Your task to perform on an android device: Do I have any events tomorrow? Image 0: 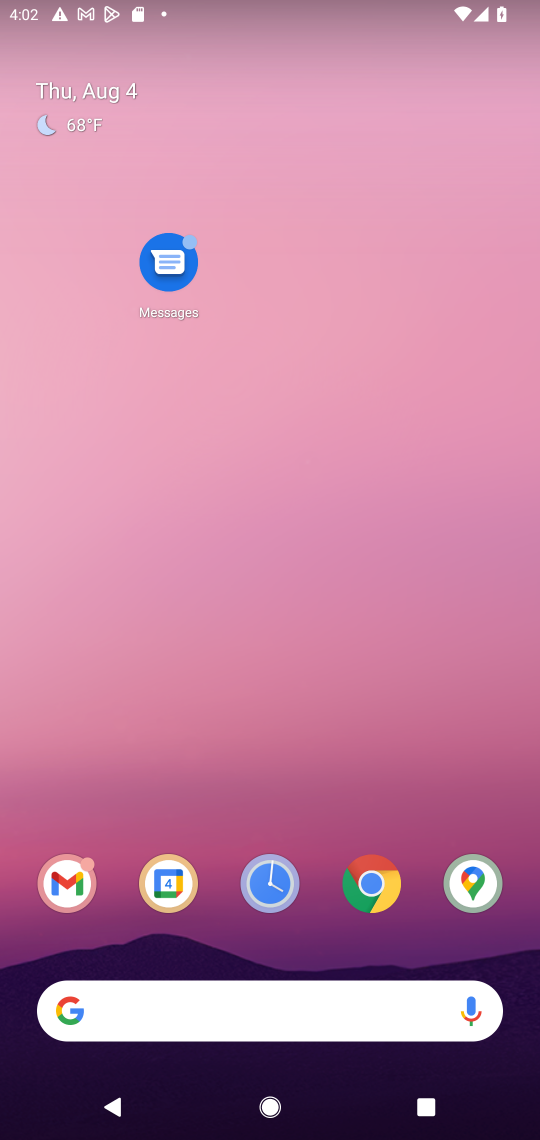
Step 0: drag from (317, 953) to (319, 166)
Your task to perform on an android device: Do I have any events tomorrow? Image 1: 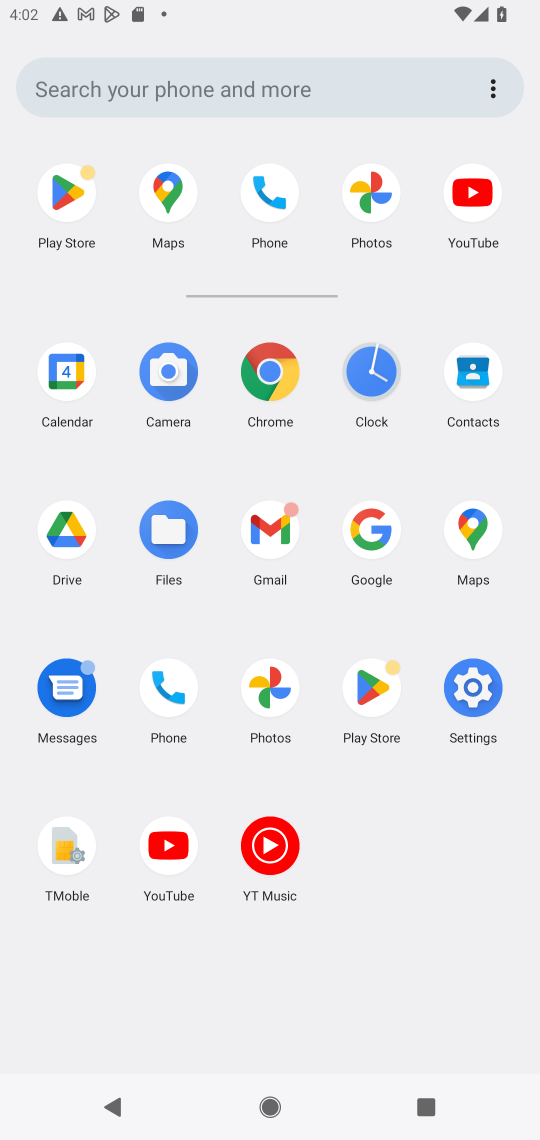
Step 1: click (65, 374)
Your task to perform on an android device: Do I have any events tomorrow? Image 2: 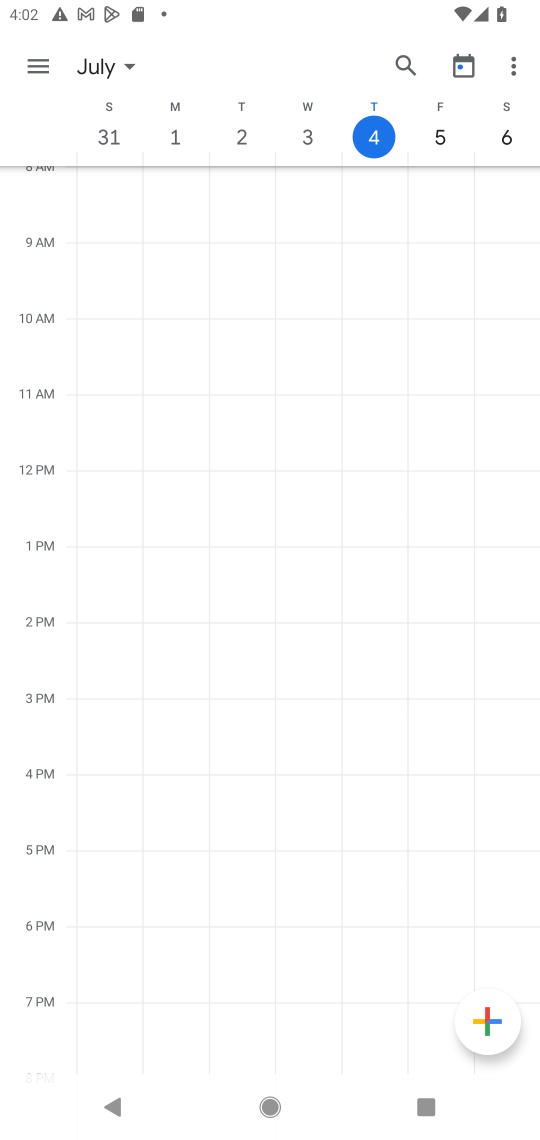
Step 2: click (44, 61)
Your task to perform on an android device: Do I have any events tomorrow? Image 3: 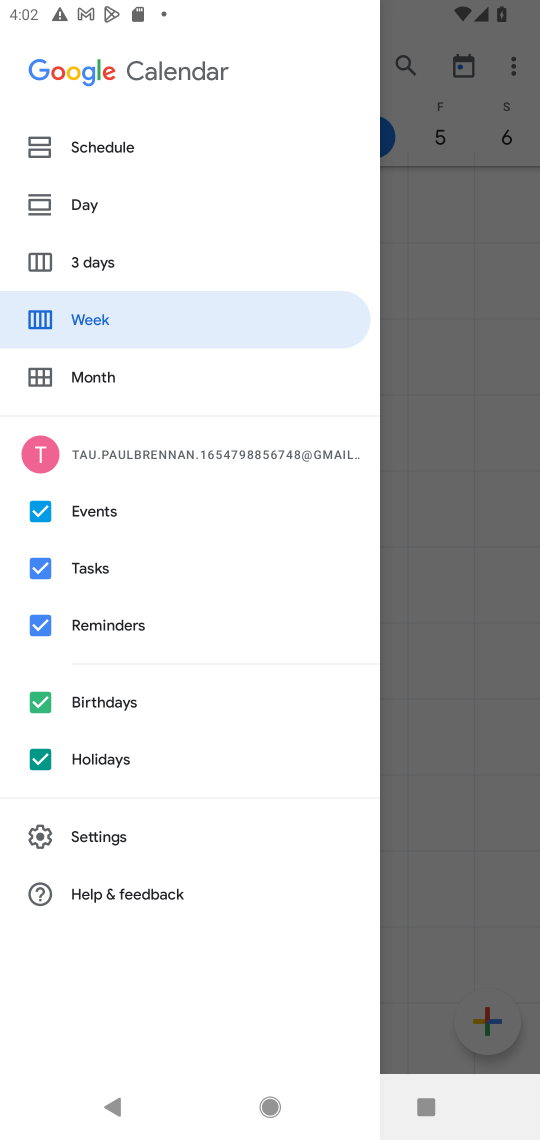
Step 3: click (42, 755)
Your task to perform on an android device: Do I have any events tomorrow? Image 4: 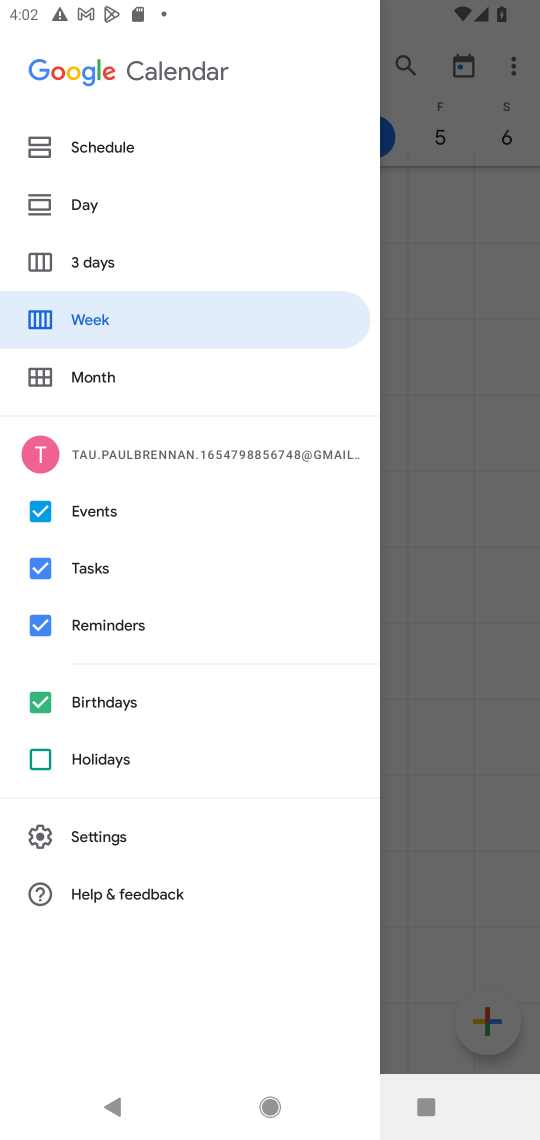
Step 4: click (41, 689)
Your task to perform on an android device: Do I have any events tomorrow? Image 5: 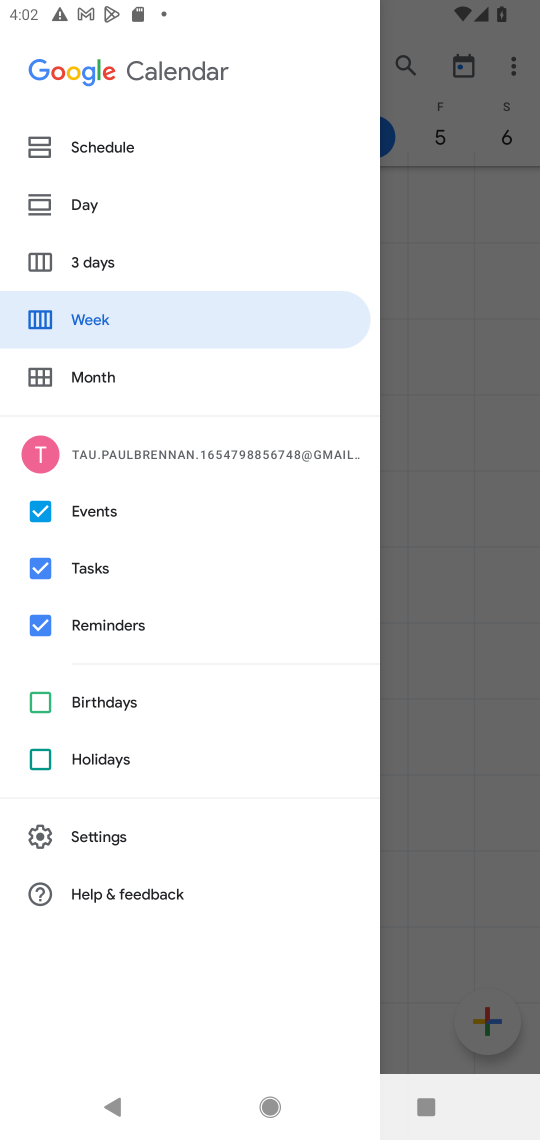
Step 5: click (42, 625)
Your task to perform on an android device: Do I have any events tomorrow? Image 6: 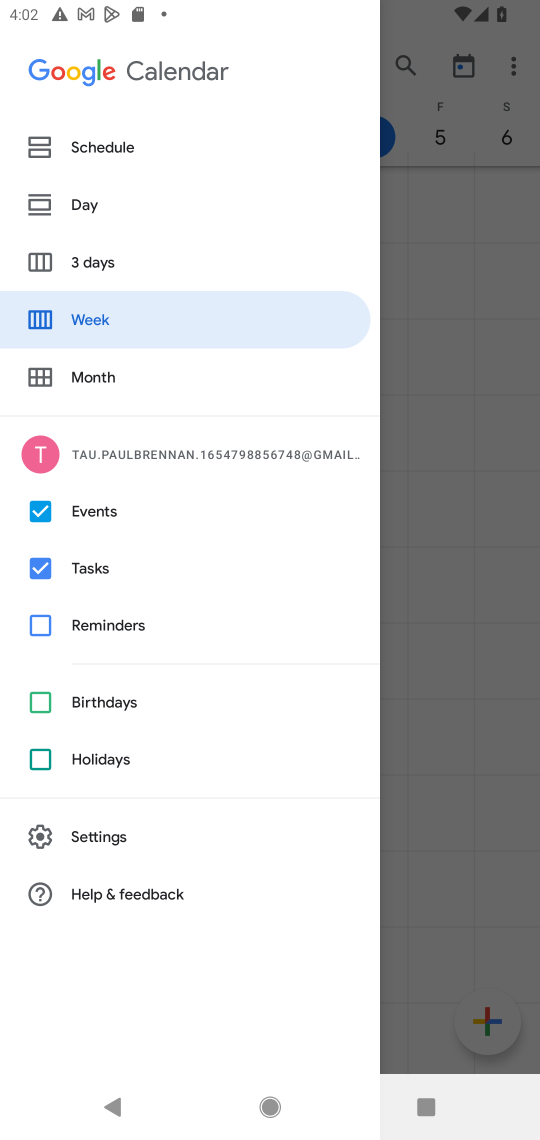
Step 6: click (38, 563)
Your task to perform on an android device: Do I have any events tomorrow? Image 7: 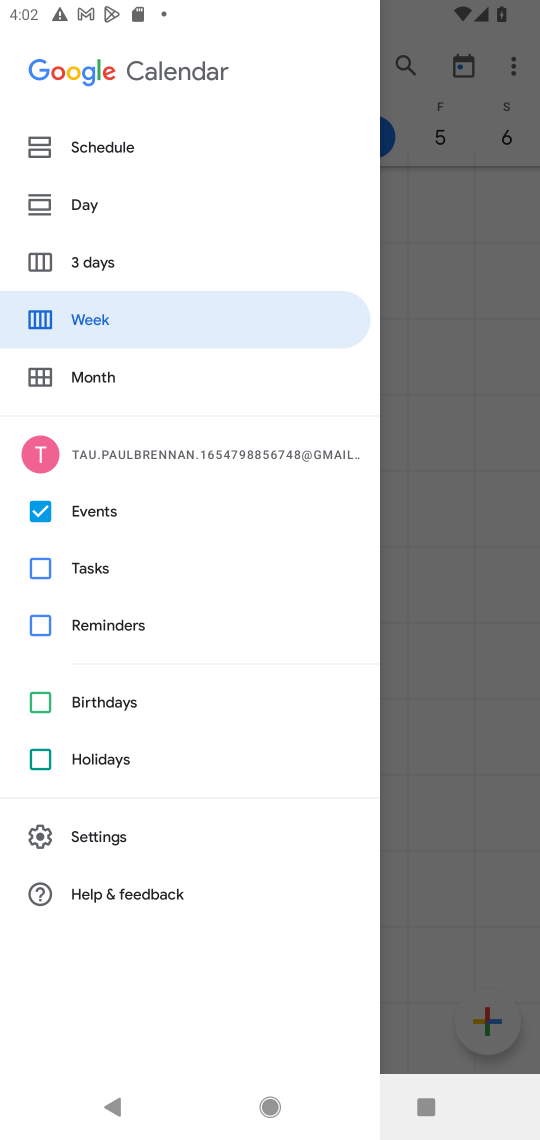
Step 7: click (127, 318)
Your task to perform on an android device: Do I have any events tomorrow? Image 8: 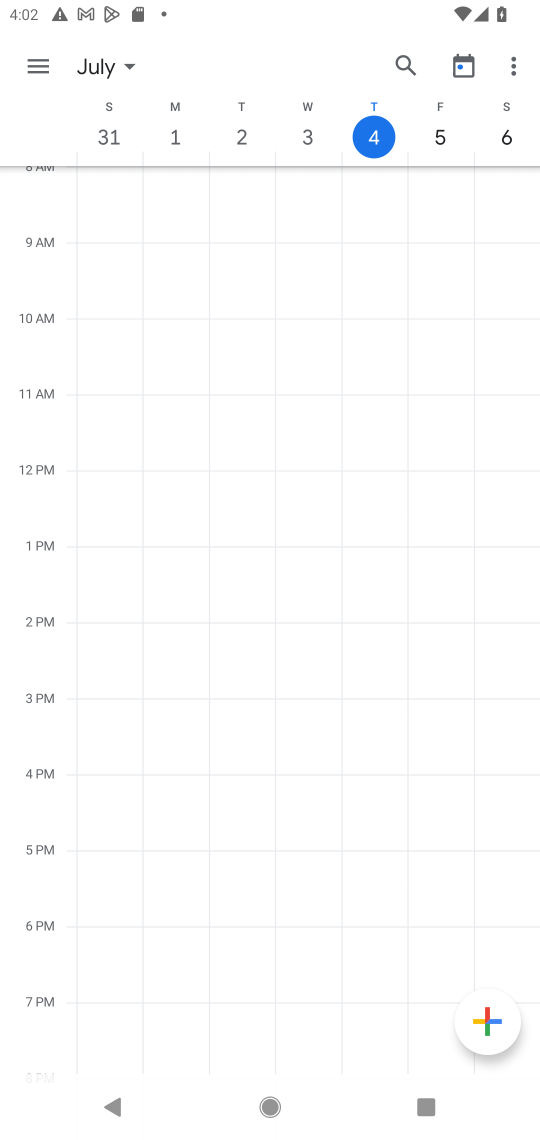
Step 8: click (440, 138)
Your task to perform on an android device: Do I have any events tomorrow? Image 9: 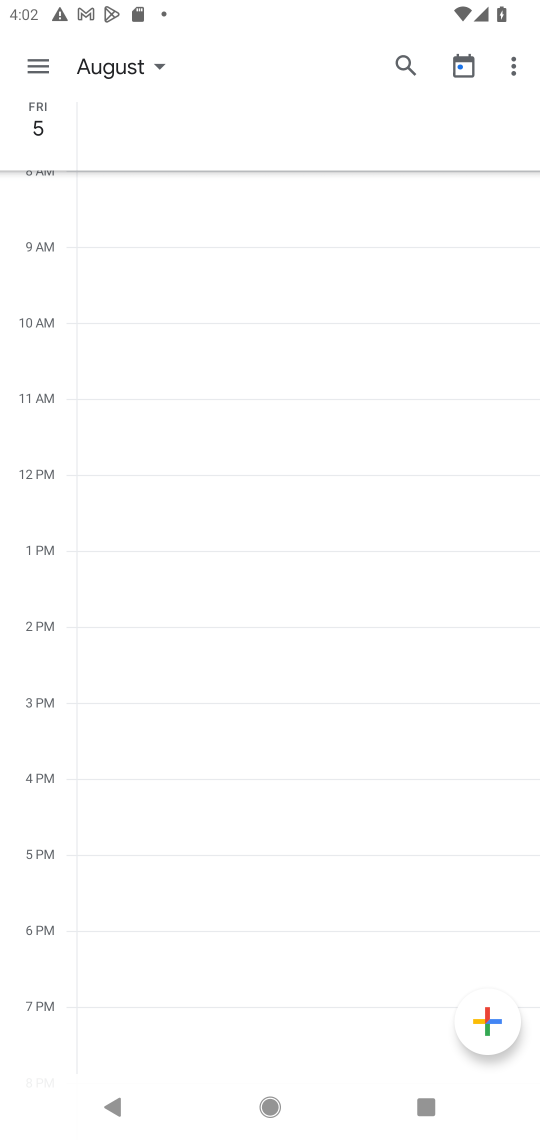
Step 9: drag from (437, 135) to (138, 129)
Your task to perform on an android device: Do I have any events tomorrow? Image 10: 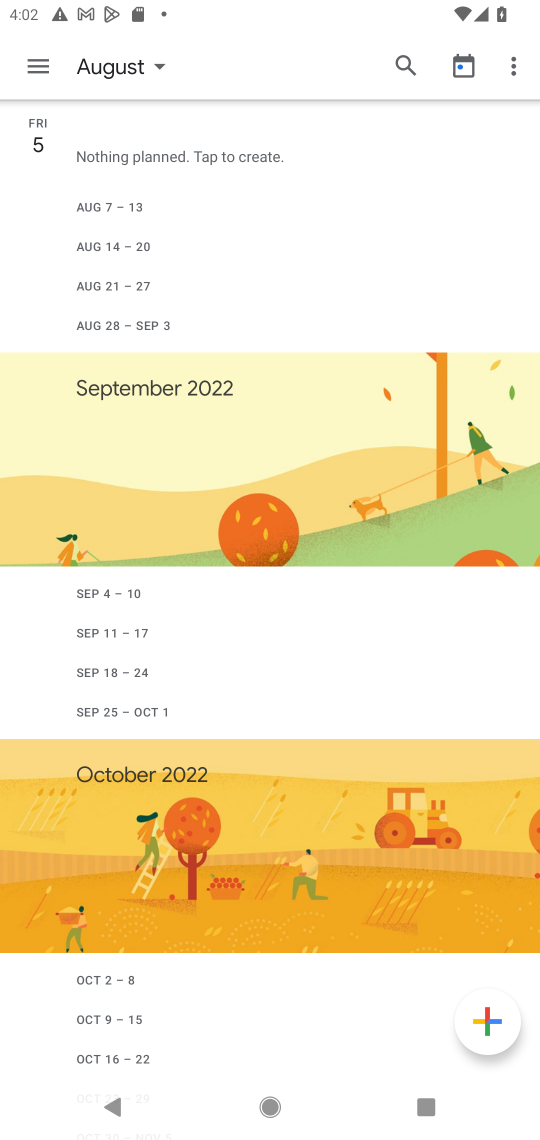
Step 10: click (158, 64)
Your task to perform on an android device: Do I have any events tomorrow? Image 11: 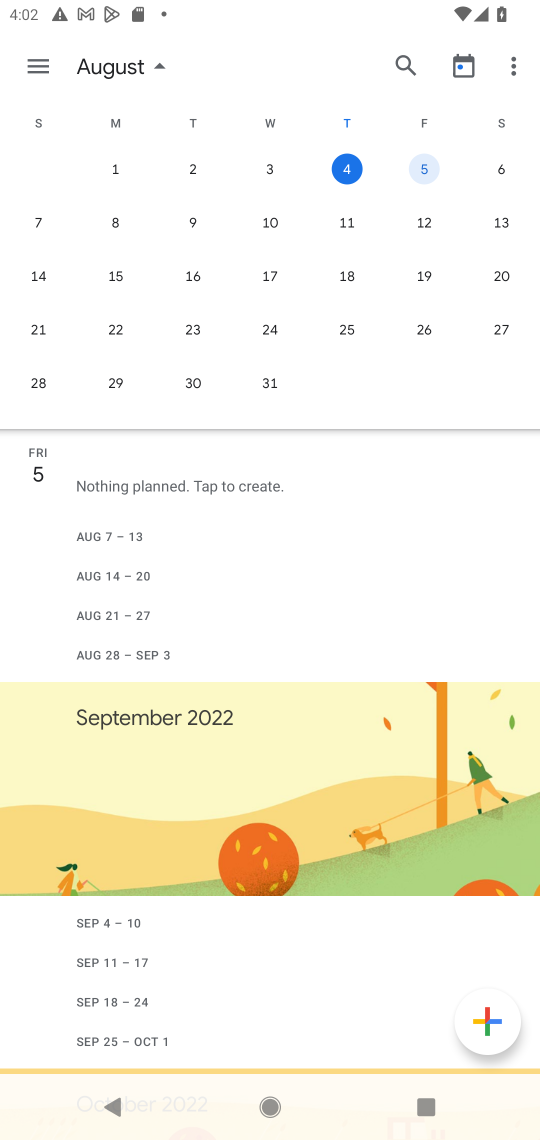
Step 11: drag from (438, 259) to (119, 241)
Your task to perform on an android device: Do I have any events tomorrow? Image 12: 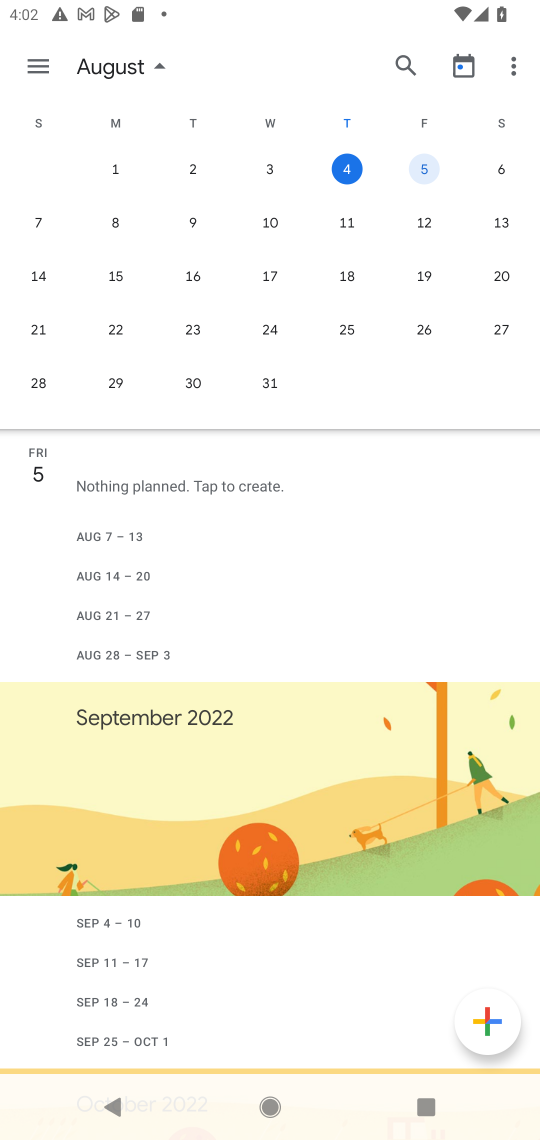
Step 12: click (425, 163)
Your task to perform on an android device: Do I have any events tomorrow? Image 13: 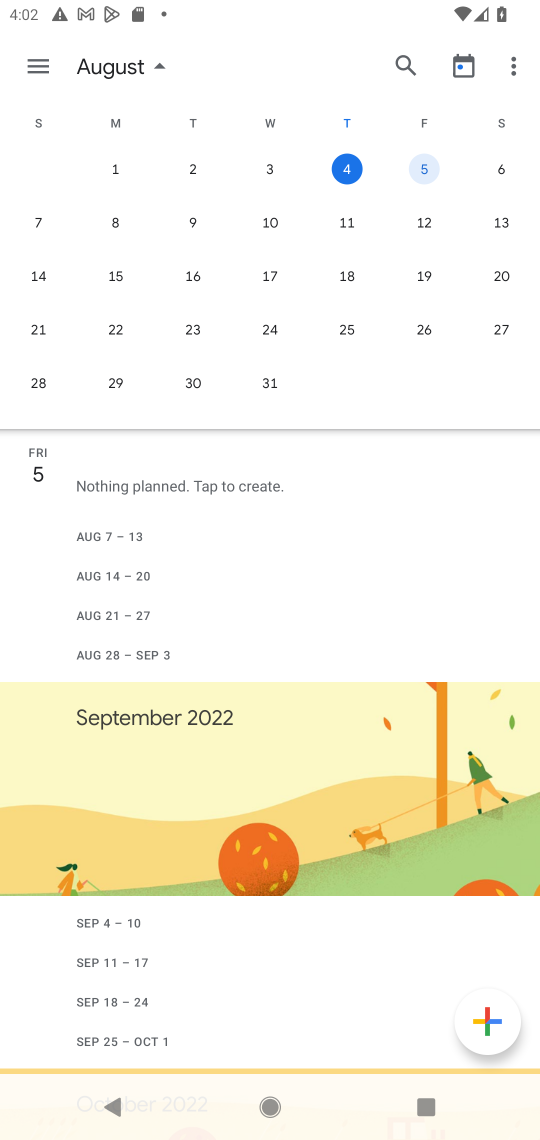
Step 13: click (421, 166)
Your task to perform on an android device: Do I have any events tomorrow? Image 14: 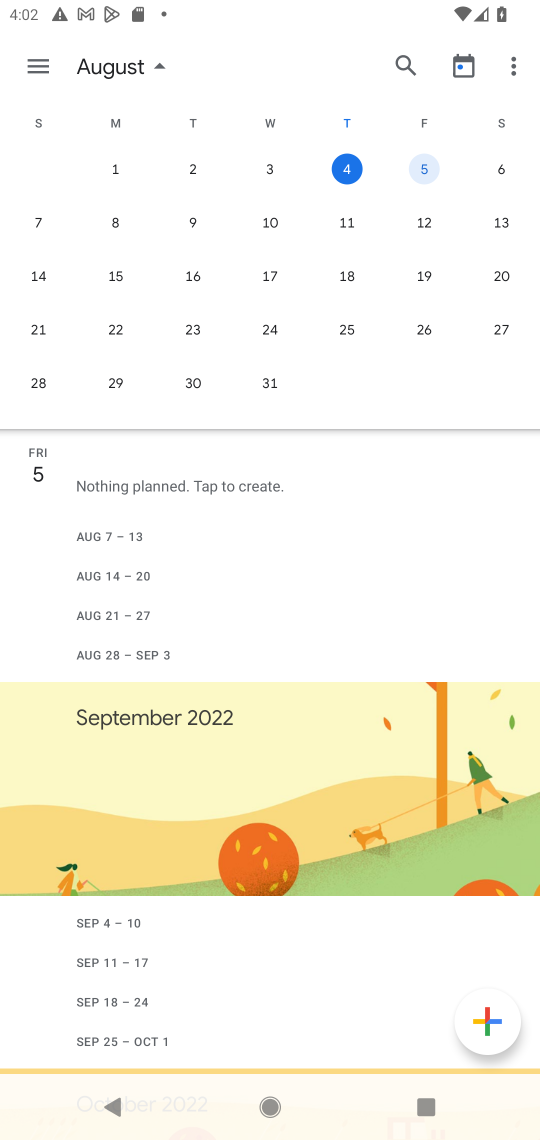
Step 14: task complete